Your task to perform on an android device: turn off improve location accuracy Image 0: 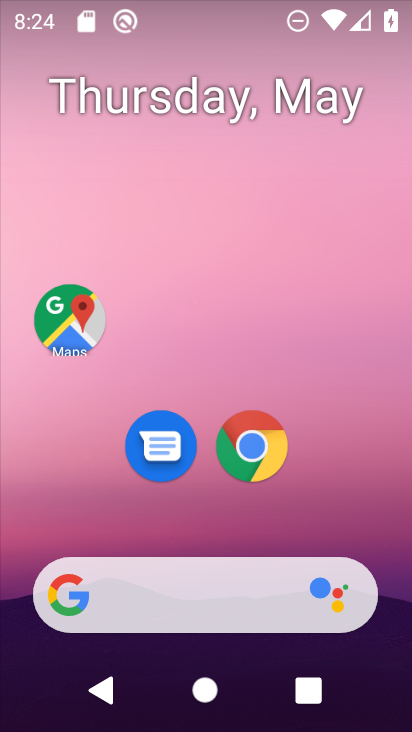
Step 0: drag from (350, 510) to (316, 169)
Your task to perform on an android device: turn off improve location accuracy Image 1: 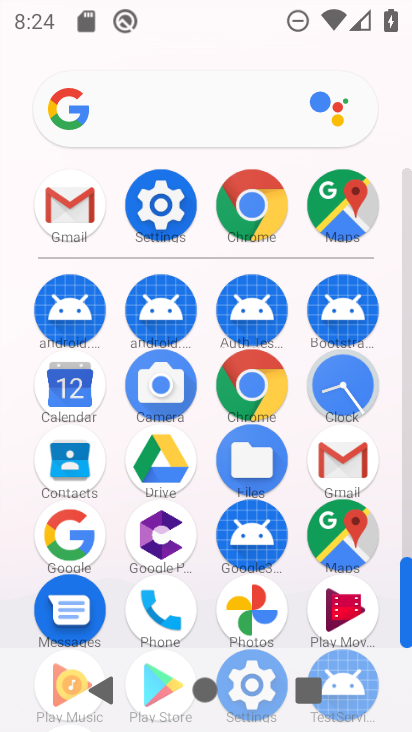
Step 1: click (149, 208)
Your task to perform on an android device: turn off improve location accuracy Image 2: 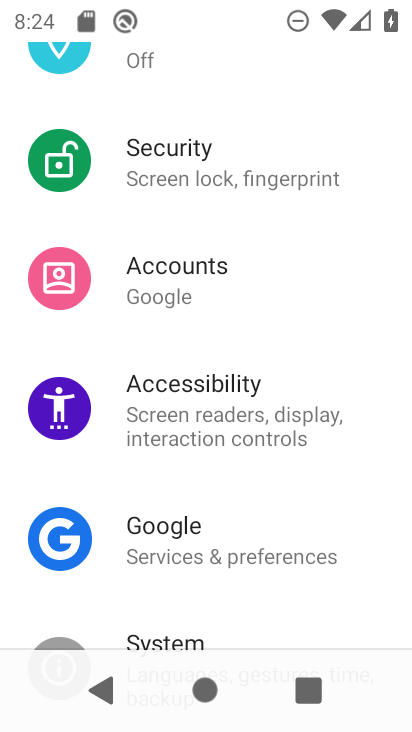
Step 2: drag from (282, 595) to (269, 226)
Your task to perform on an android device: turn off improve location accuracy Image 3: 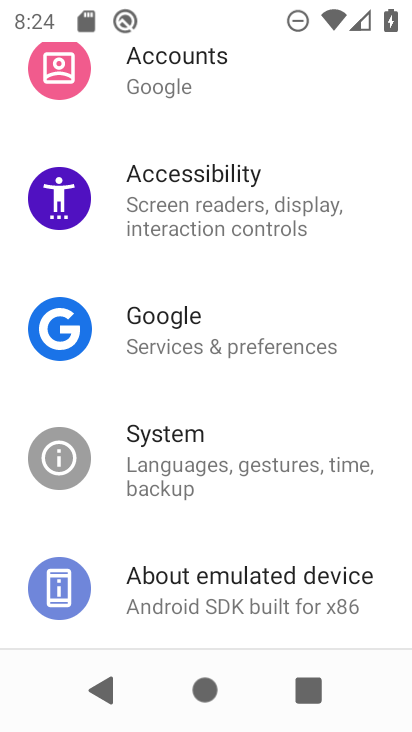
Step 3: drag from (278, 206) to (273, 534)
Your task to perform on an android device: turn off improve location accuracy Image 4: 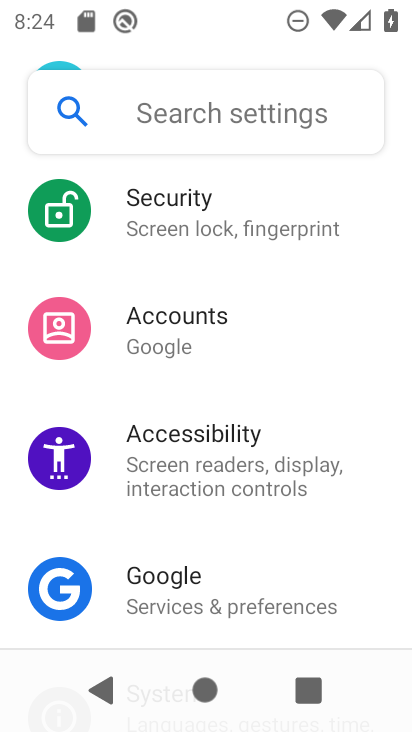
Step 4: drag from (264, 261) to (266, 531)
Your task to perform on an android device: turn off improve location accuracy Image 5: 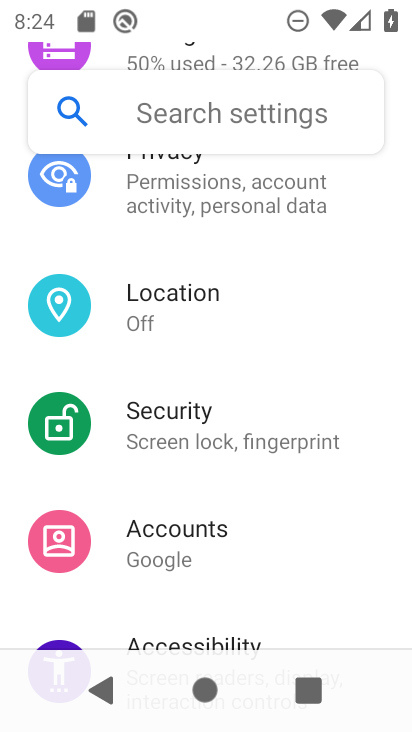
Step 5: click (186, 289)
Your task to perform on an android device: turn off improve location accuracy Image 6: 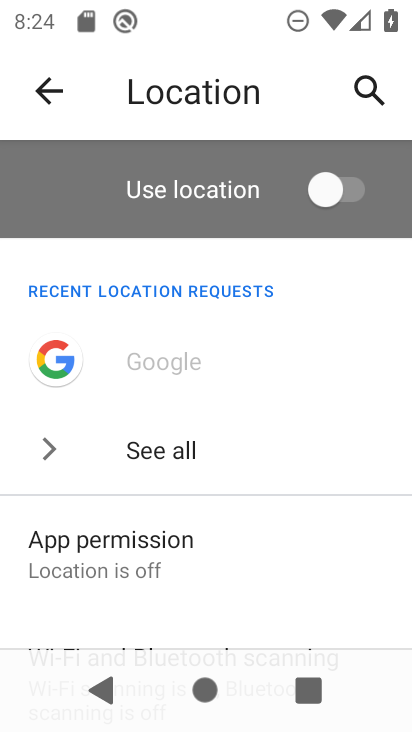
Step 6: drag from (258, 612) to (198, 308)
Your task to perform on an android device: turn off improve location accuracy Image 7: 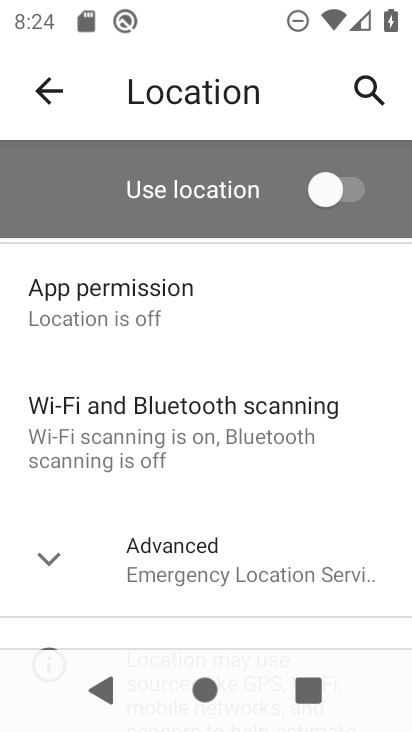
Step 7: drag from (264, 496) to (245, 271)
Your task to perform on an android device: turn off improve location accuracy Image 8: 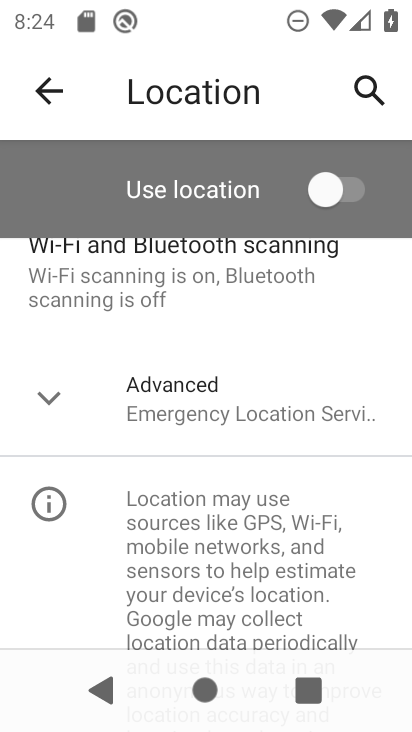
Step 8: click (260, 421)
Your task to perform on an android device: turn off improve location accuracy Image 9: 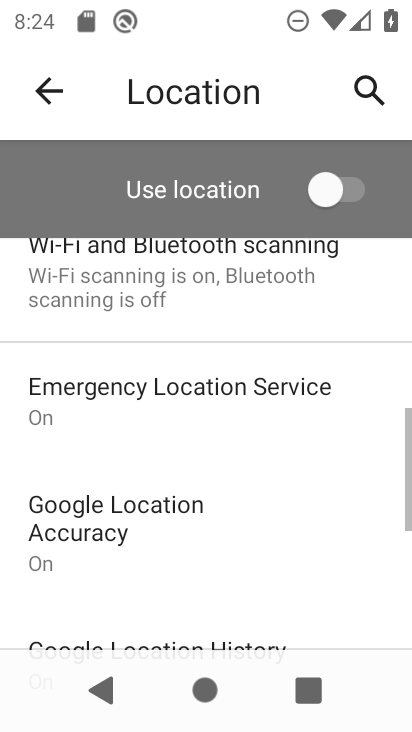
Step 9: drag from (278, 592) to (202, 297)
Your task to perform on an android device: turn off improve location accuracy Image 10: 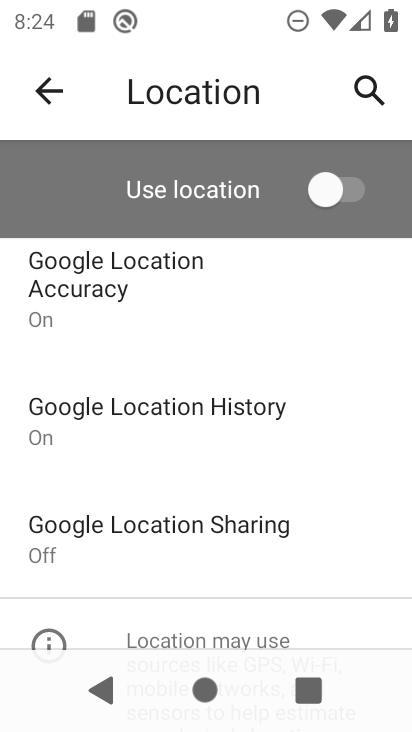
Step 10: click (143, 298)
Your task to perform on an android device: turn off improve location accuracy Image 11: 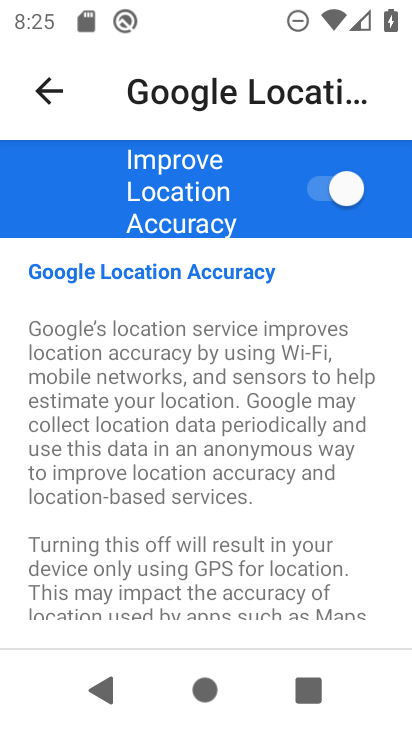
Step 11: click (322, 187)
Your task to perform on an android device: turn off improve location accuracy Image 12: 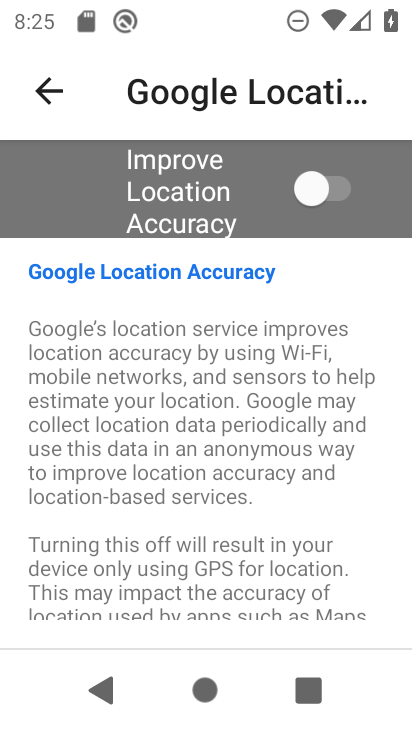
Step 12: task complete